Your task to perform on an android device: Is it going to rain today? Image 0: 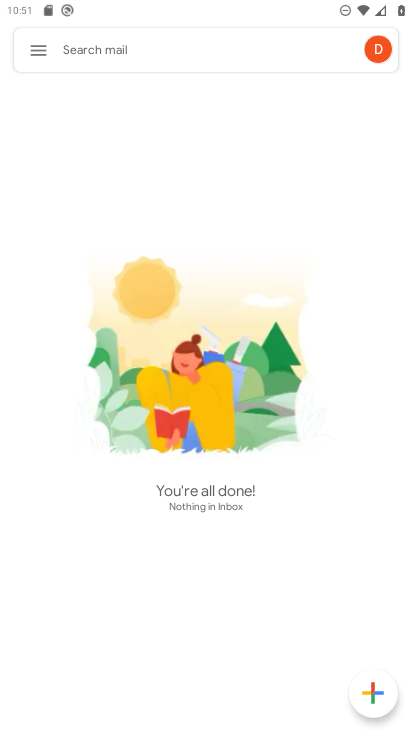
Step 0: press home button
Your task to perform on an android device: Is it going to rain today? Image 1: 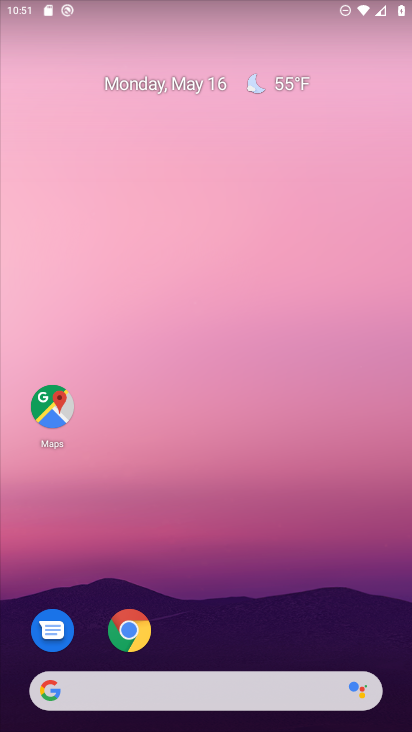
Step 1: drag from (221, 622) to (207, 168)
Your task to perform on an android device: Is it going to rain today? Image 2: 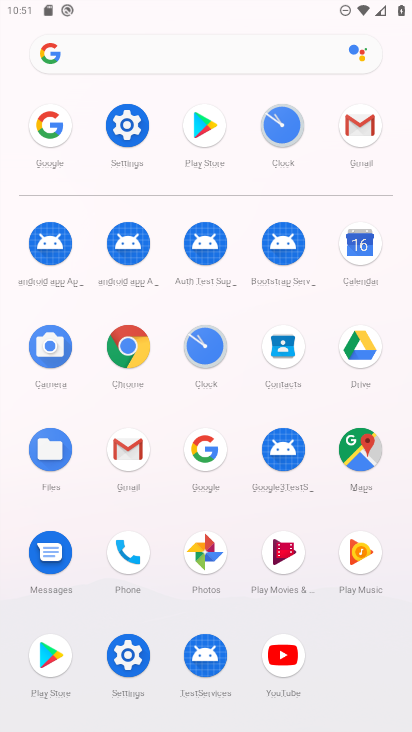
Step 2: click (197, 437)
Your task to perform on an android device: Is it going to rain today? Image 3: 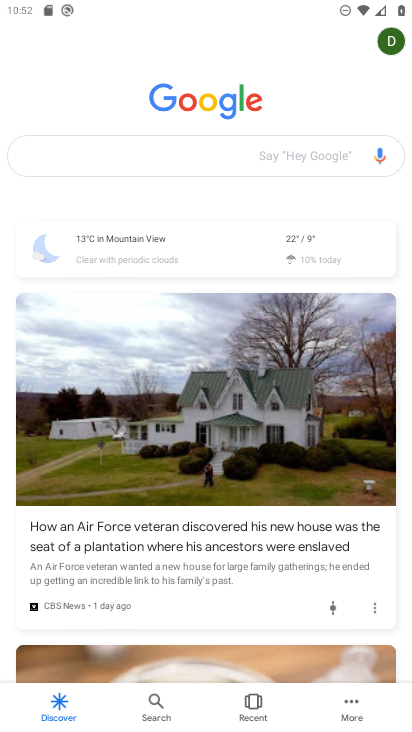
Step 3: click (174, 156)
Your task to perform on an android device: Is it going to rain today? Image 4: 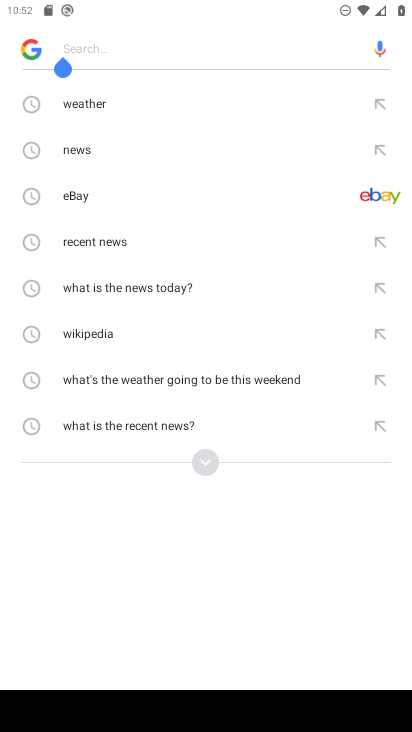
Step 4: click (95, 143)
Your task to perform on an android device: Is it going to rain today? Image 5: 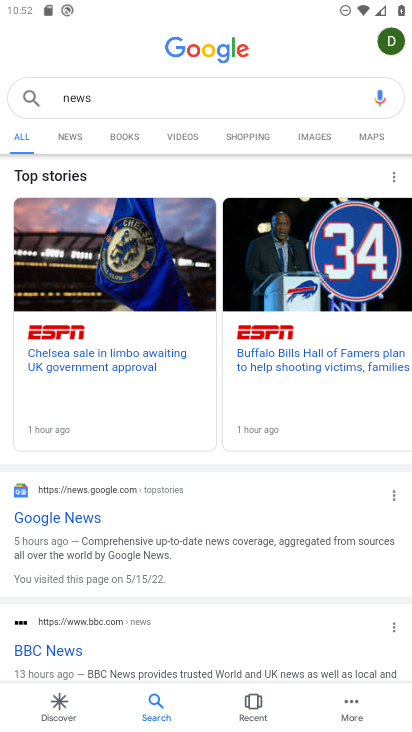
Step 5: click (103, 97)
Your task to perform on an android device: Is it going to rain today? Image 6: 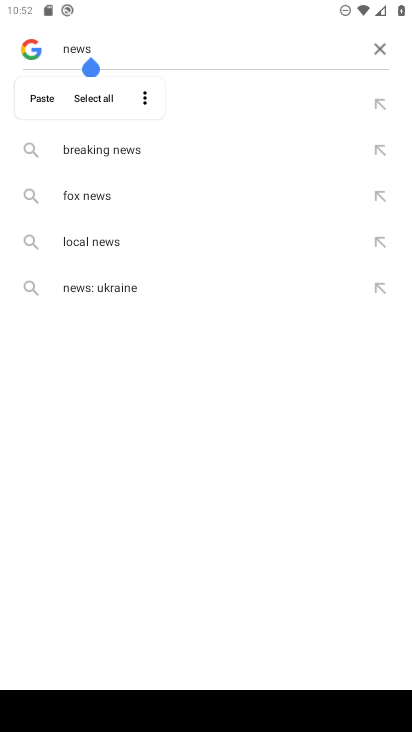
Step 6: click (377, 47)
Your task to perform on an android device: Is it going to rain today? Image 7: 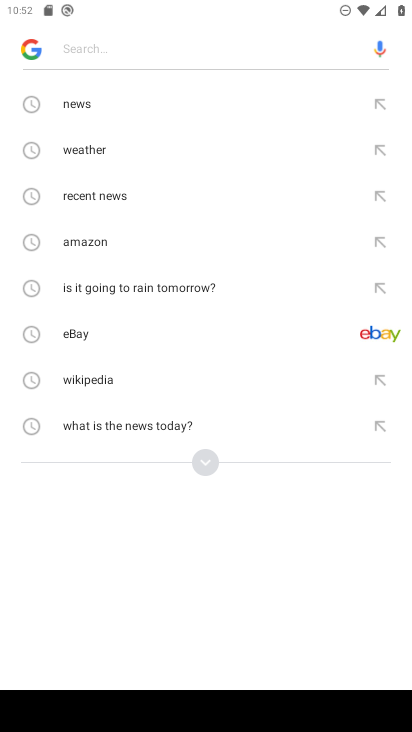
Step 7: click (101, 143)
Your task to perform on an android device: Is it going to rain today? Image 8: 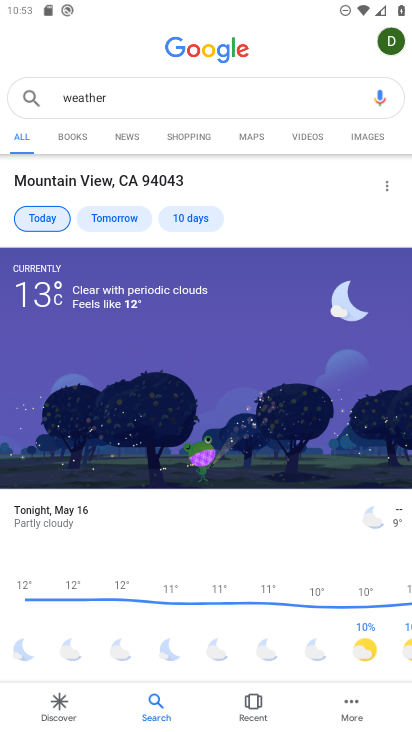
Step 8: task complete